Your task to perform on an android device: View the shopping cart on target. Image 0: 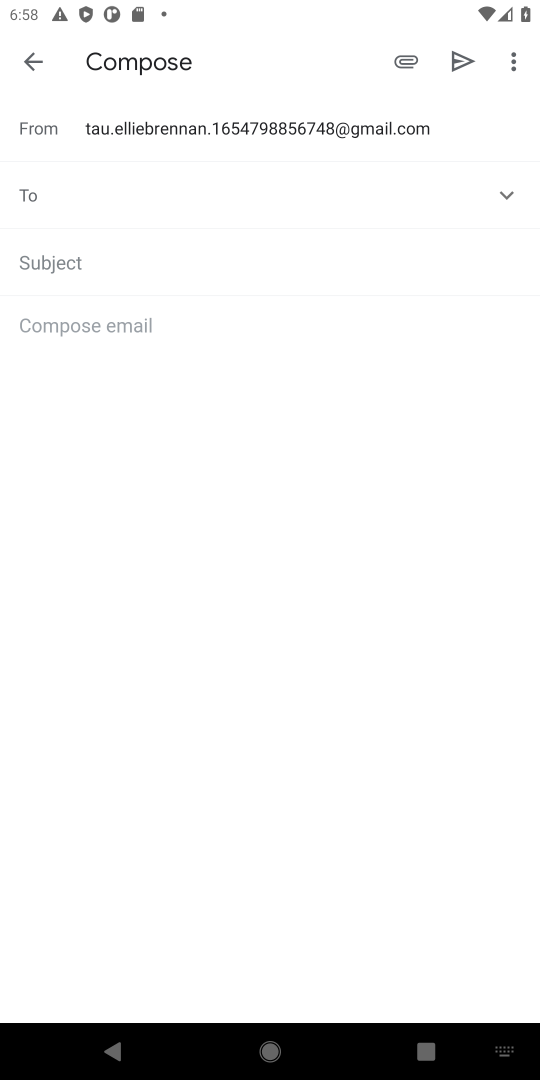
Step 0: press home button
Your task to perform on an android device: View the shopping cart on target. Image 1: 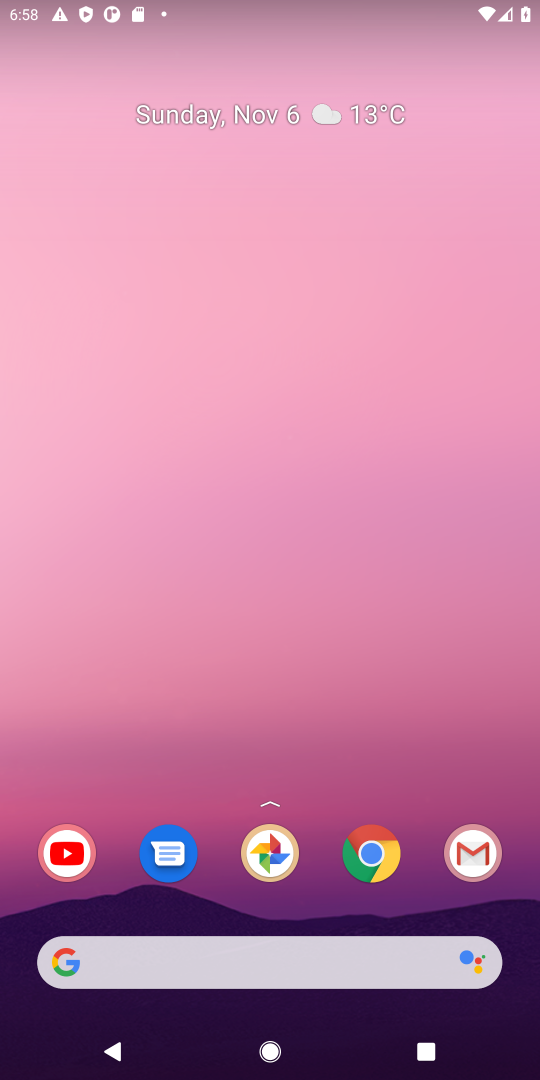
Step 1: click (372, 856)
Your task to perform on an android device: View the shopping cart on target. Image 2: 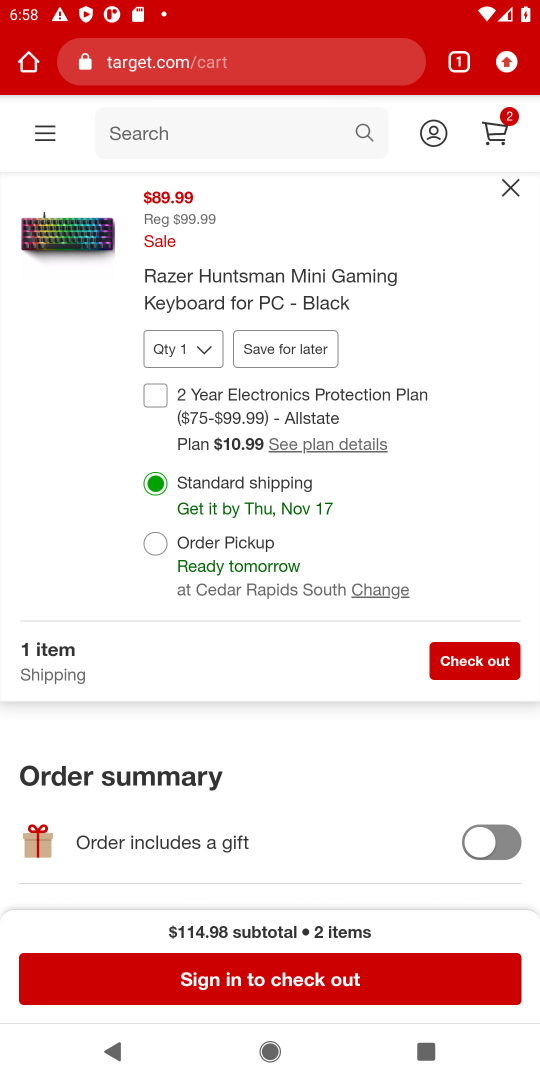
Step 2: click (155, 127)
Your task to perform on an android device: View the shopping cart on target. Image 3: 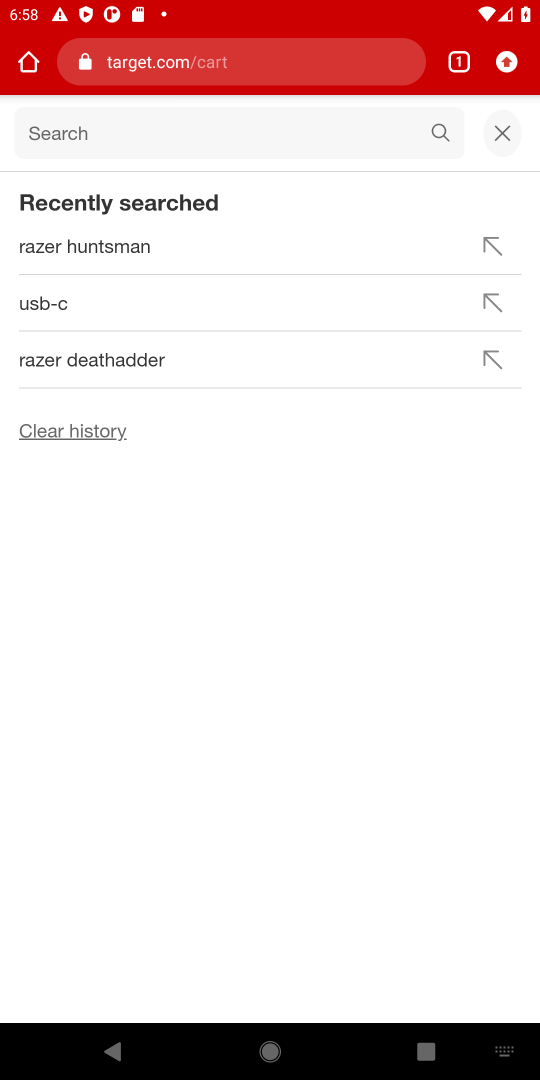
Step 3: click (497, 133)
Your task to perform on an android device: View the shopping cart on target. Image 4: 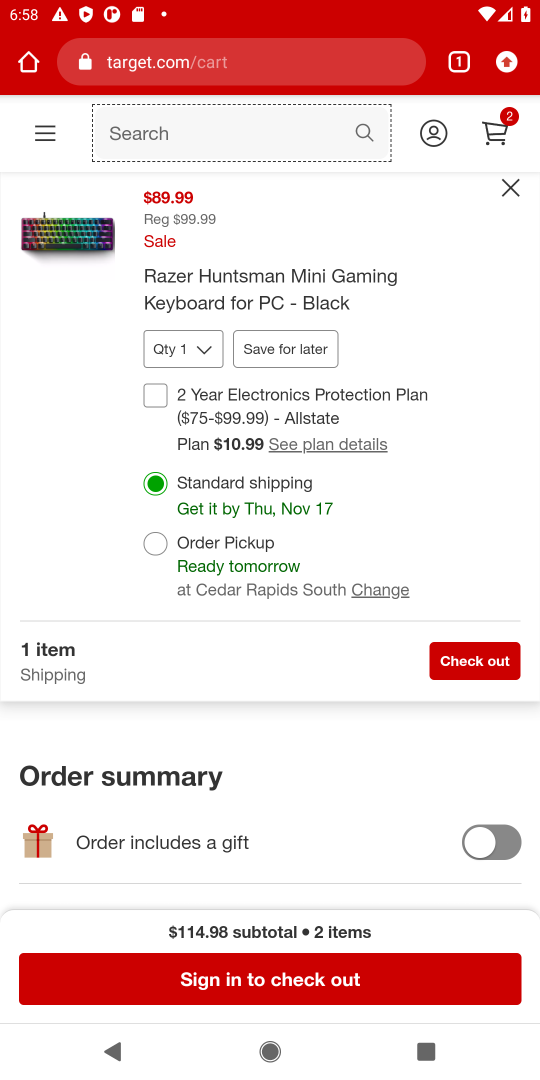
Step 4: task complete